Your task to perform on an android device: Open the calendar and show me this week's events? Image 0: 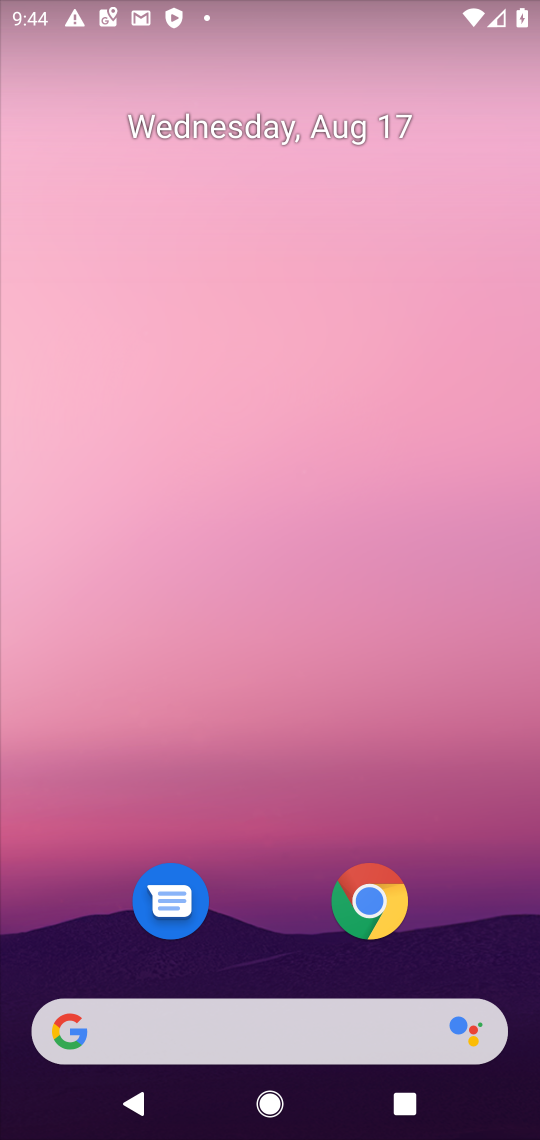
Step 0: drag from (284, 556) to (289, 164)
Your task to perform on an android device: Open the calendar and show me this week's events? Image 1: 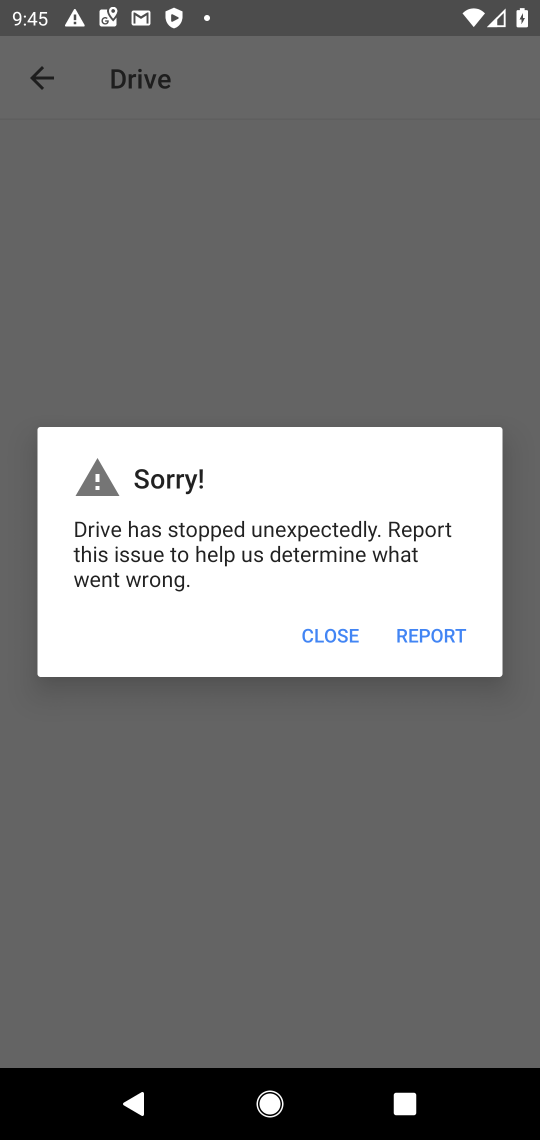
Step 1: press home button
Your task to perform on an android device: Open the calendar and show me this week's events? Image 2: 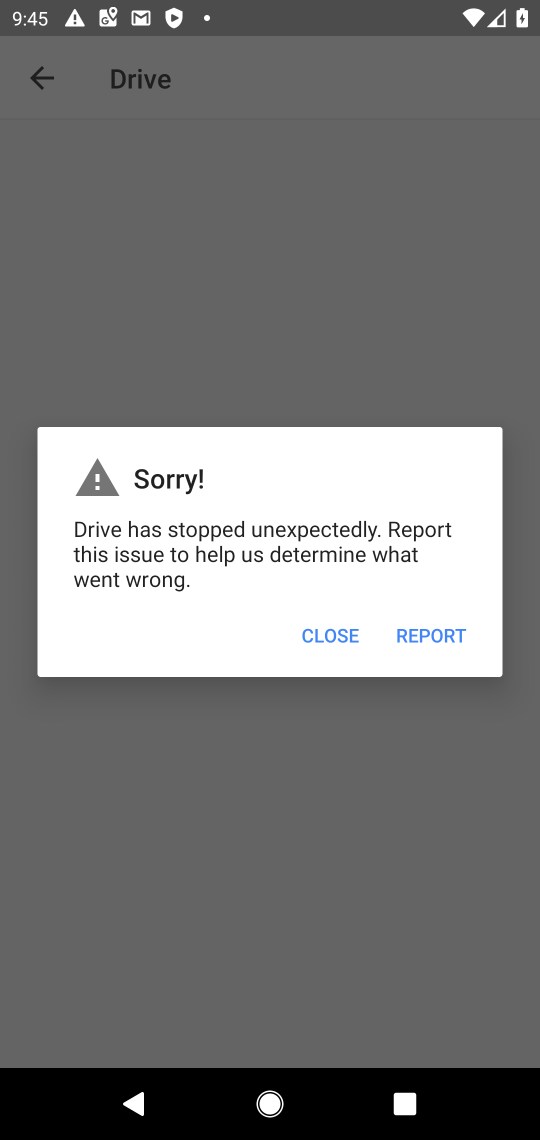
Step 2: press home button
Your task to perform on an android device: Open the calendar and show me this week's events? Image 3: 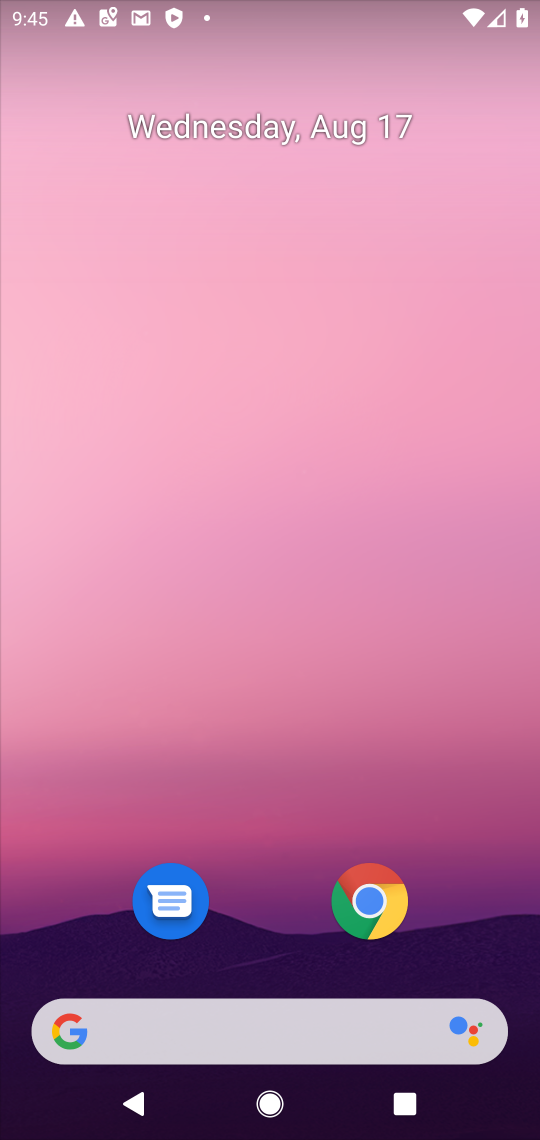
Step 3: drag from (272, 915) to (231, 715)
Your task to perform on an android device: Open the calendar and show me this week's events? Image 4: 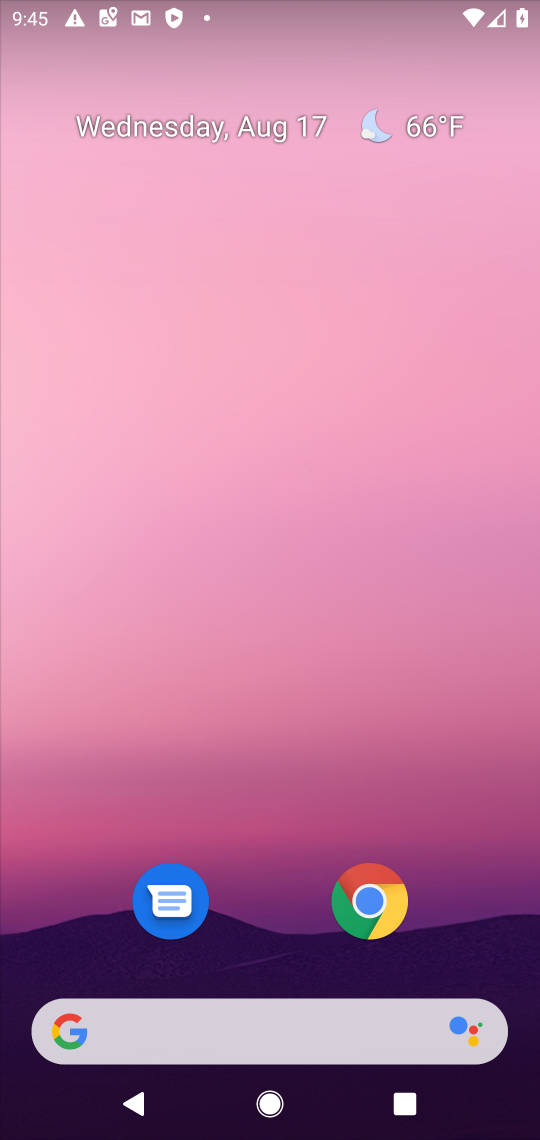
Step 4: click (274, 121)
Your task to perform on an android device: Open the calendar and show me this week's events? Image 5: 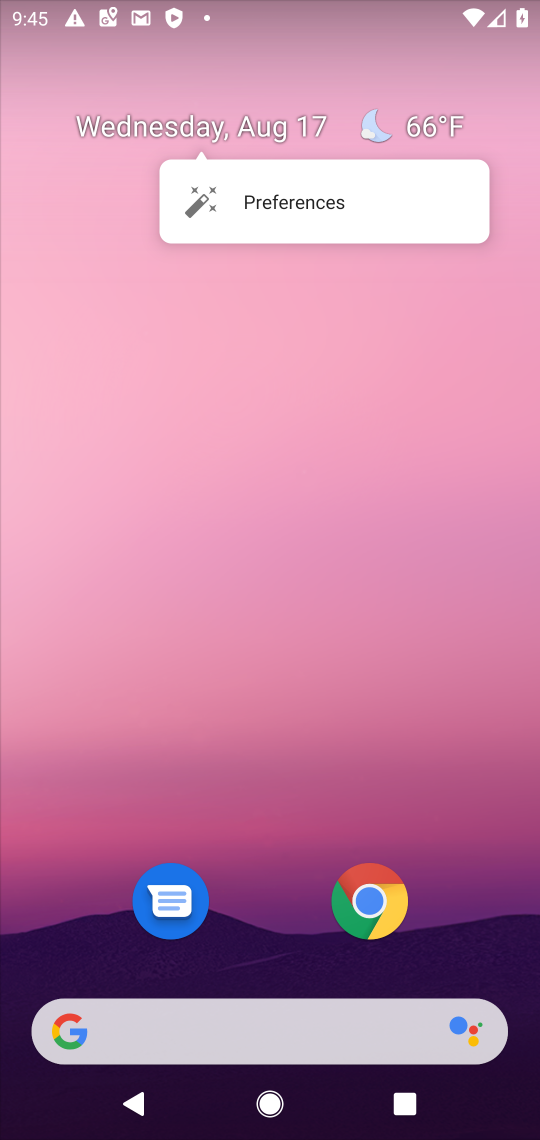
Step 5: click (276, 130)
Your task to perform on an android device: Open the calendar and show me this week's events? Image 6: 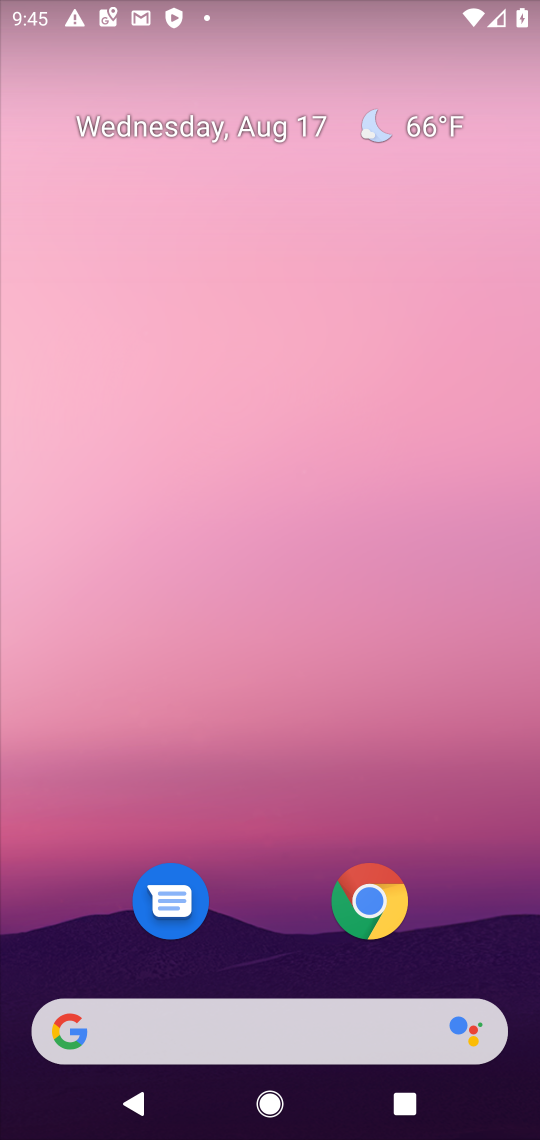
Step 6: click (144, 129)
Your task to perform on an android device: Open the calendar and show me this week's events? Image 7: 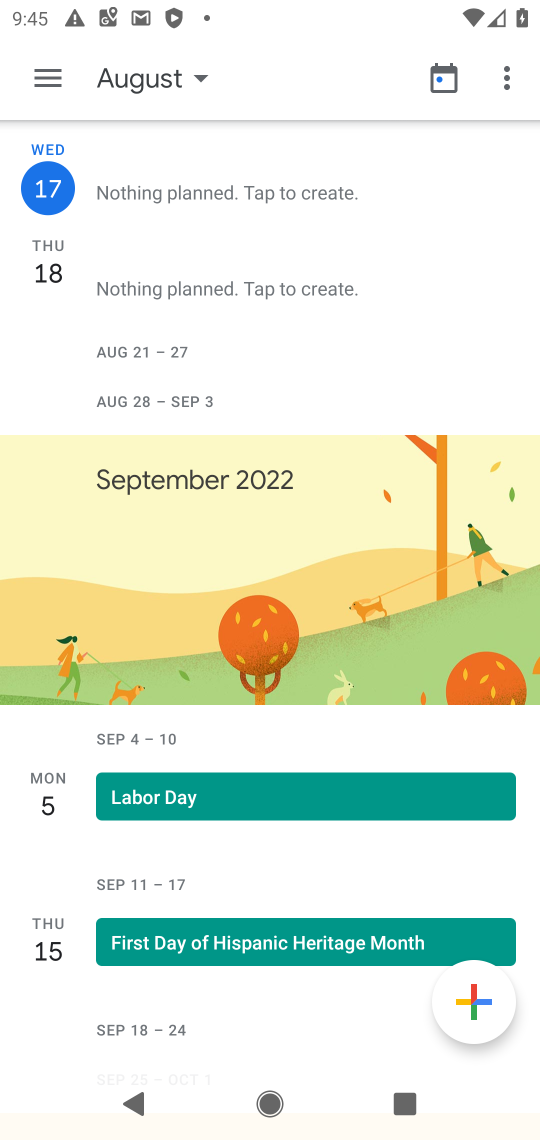
Step 7: click (55, 77)
Your task to perform on an android device: Open the calendar and show me this week's events? Image 8: 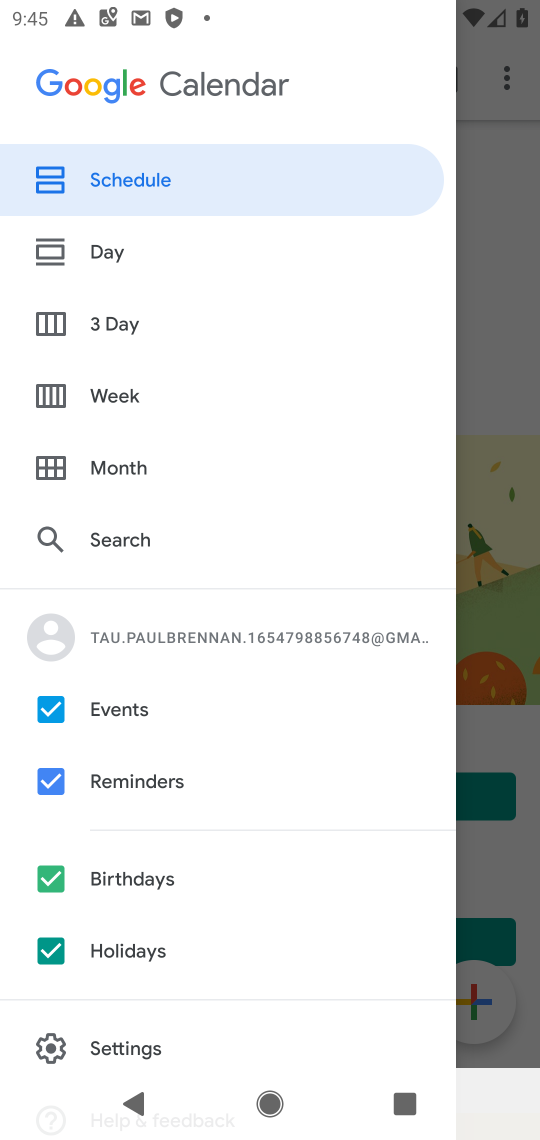
Step 8: click (112, 395)
Your task to perform on an android device: Open the calendar and show me this week's events? Image 9: 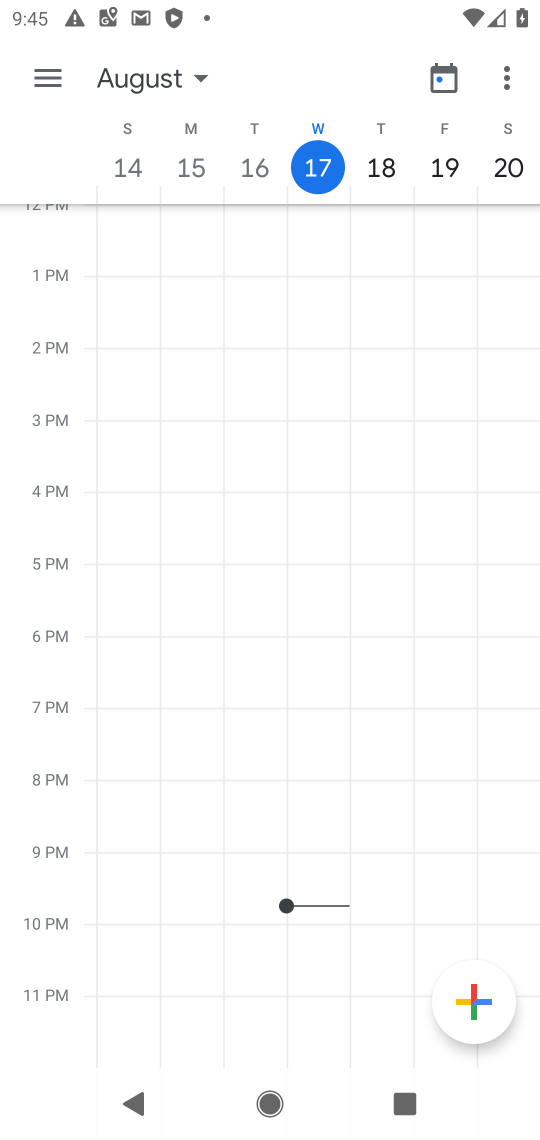
Step 9: task complete